Your task to perform on an android device: open the mobile data screen to see how much data has been used Image 0: 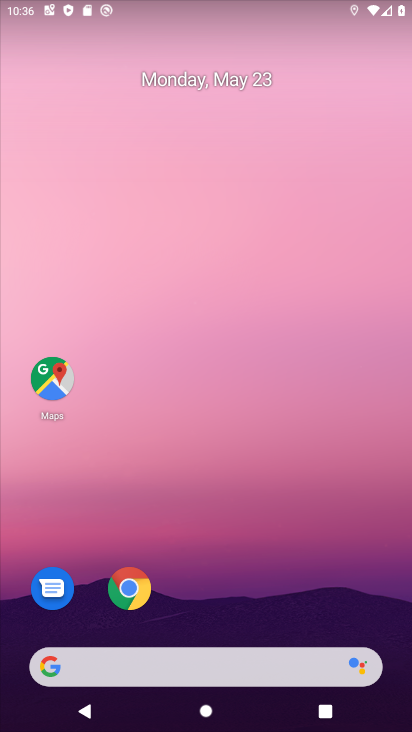
Step 0: drag from (267, 477) to (282, 94)
Your task to perform on an android device: open the mobile data screen to see how much data has been used Image 1: 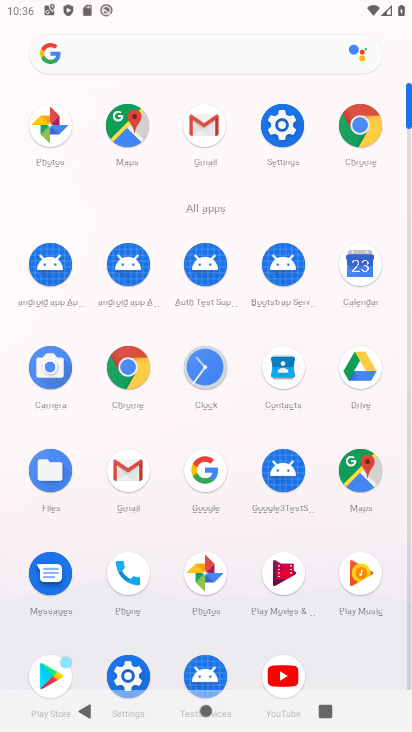
Step 1: click (274, 138)
Your task to perform on an android device: open the mobile data screen to see how much data has been used Image 2: 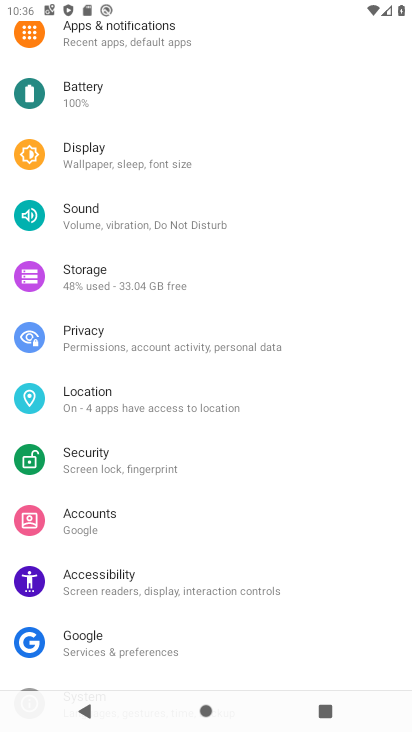
Step 2: drag from (202, 110) to (181, 525)
Your task to perform on an android device: open the mobile data screen to see how much data has been used Image 3: 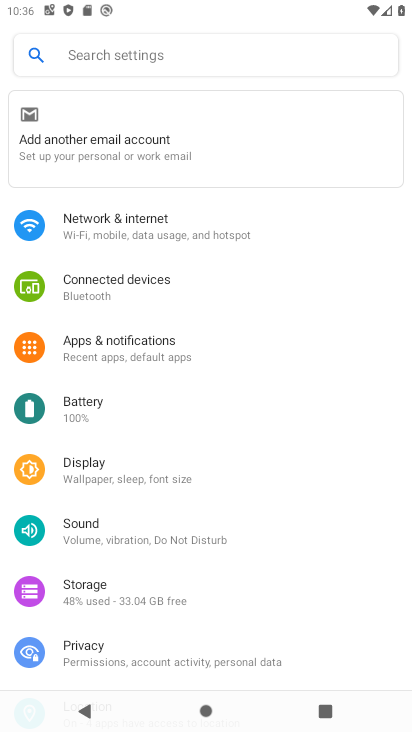
Step 3: click (160, 231)
Your task to perform on an android device: open the mobile data screen to see how much data has been used Image 4: 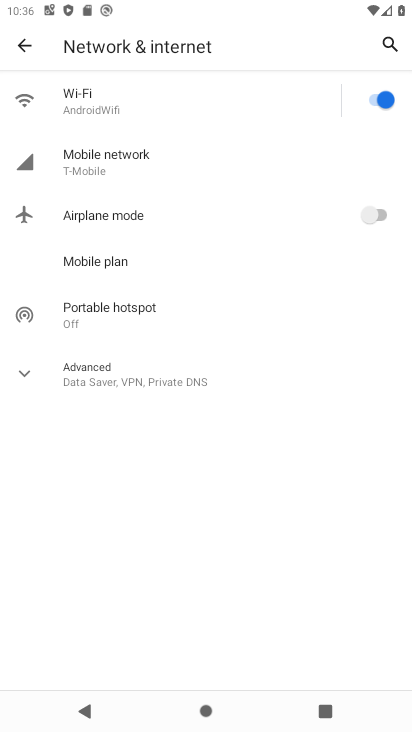
Step 4: click (147, 166)
Your task to perform on an android device: open the mobile data screen to see how much data has been used Image 5: 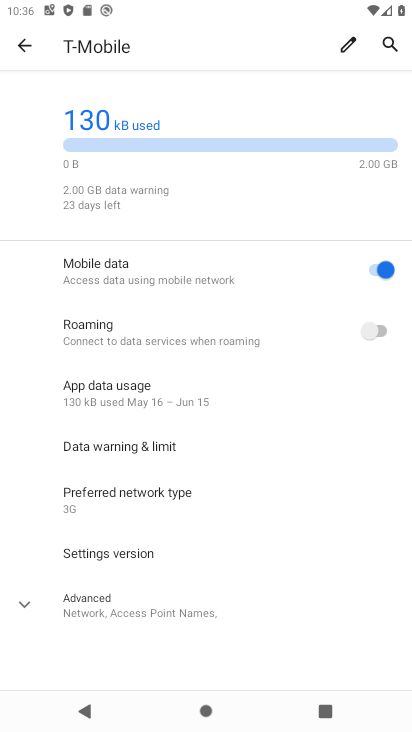
Step 5: task complete